Your task to perform on an android device: Show me productivity apps on the Play Store Image 0: 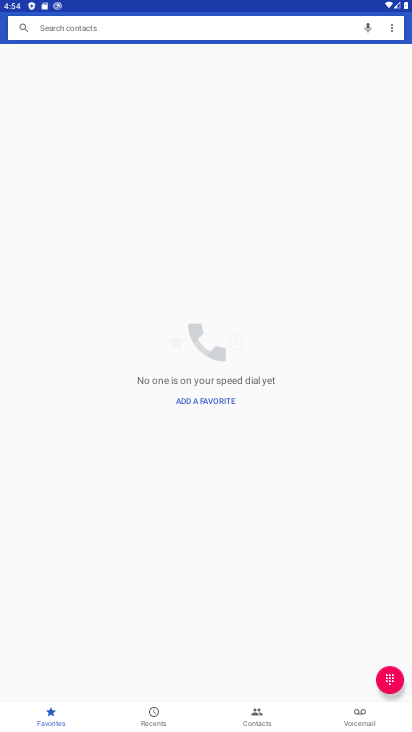
Step 0: press home button
Your task to perform on an android device: Show me productivity apps on the Play Store Image 1: 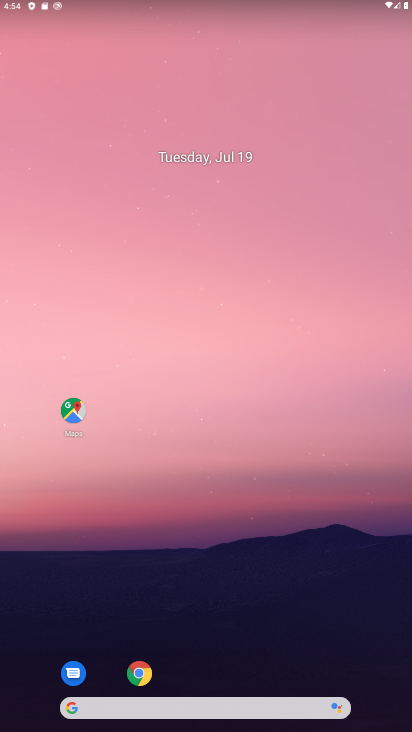
Step 1: drag from (210, 550) to (214, 70)
Your task to perform on an android device: Show me productivity apps on the Play Store Image 2: 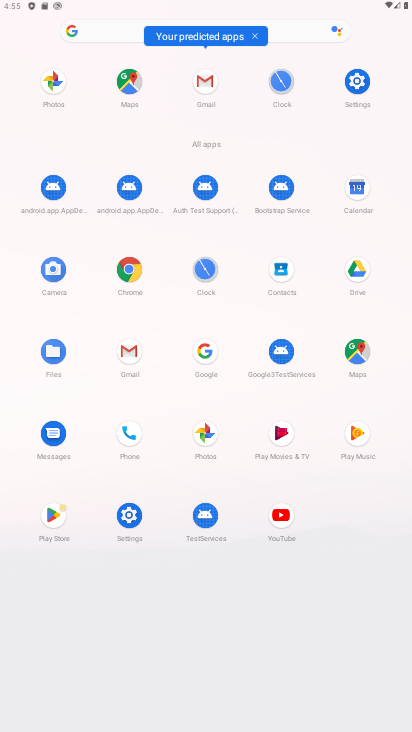
Step 2: click (55, 510)
Your task to perform on an android device: Show me productivity apps on the Play Store Image 3: 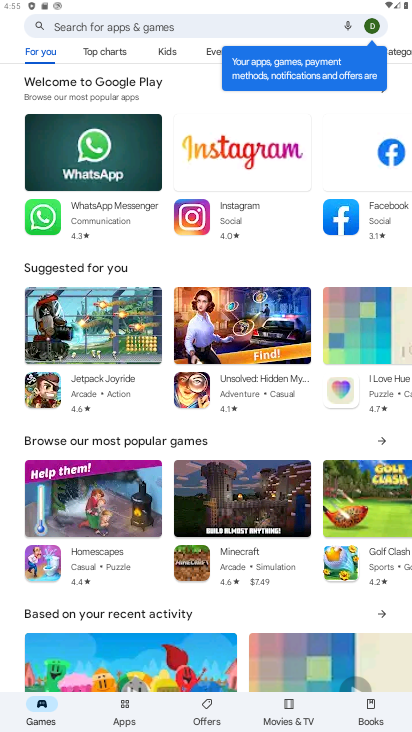
Step 3: click (118, 706)
Your task to perform on an android device: Show me productivity apps on the Play Store Image 4: 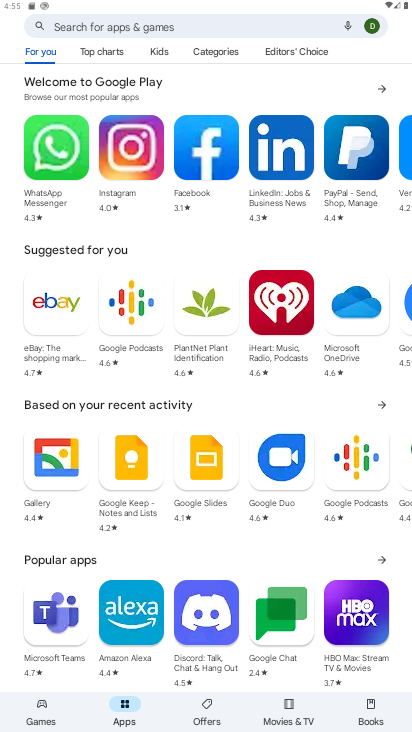
Step 4: click (208, 49)
Your task to perform on an android device: Show me productivity apps on the Play Store Image 5: 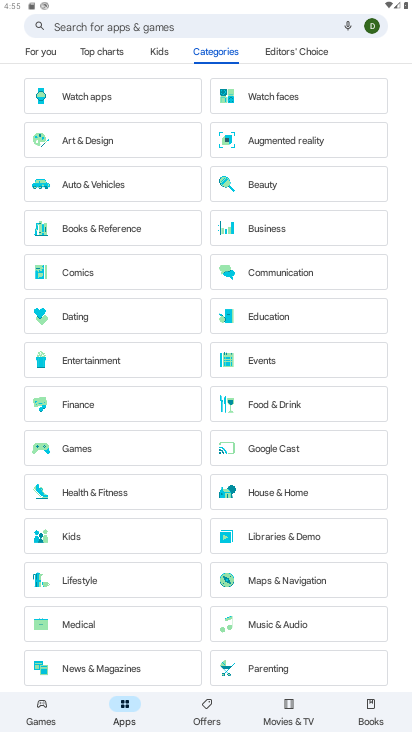
Step 5: drag from (105, 623) to (124, 85)
Your task to perform on an android device: Show me productivity apps on the Play Store Image 6: 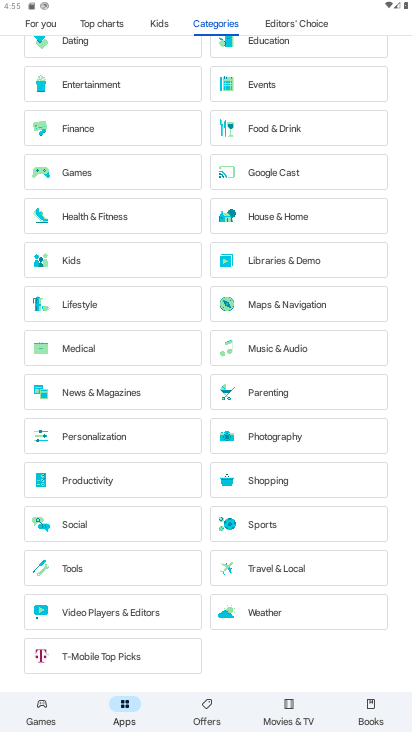
Step 6: click (76, 473)
Your task to perform on an android device: Show me productivity apps on the Play Store Image 7: 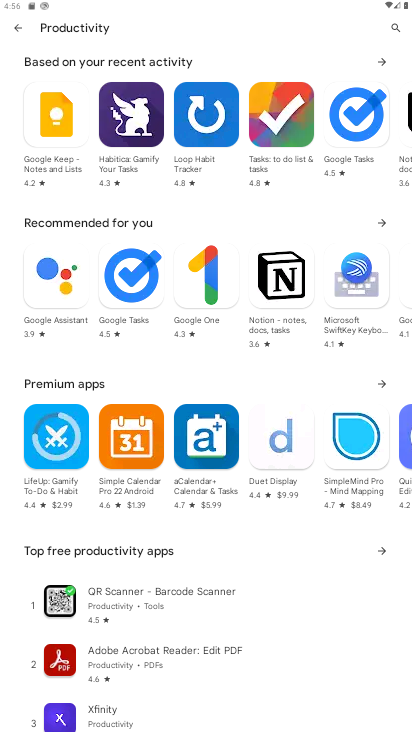
Step 7: task complete